Your task to perform on an android device: change keyboard looks Image 0: 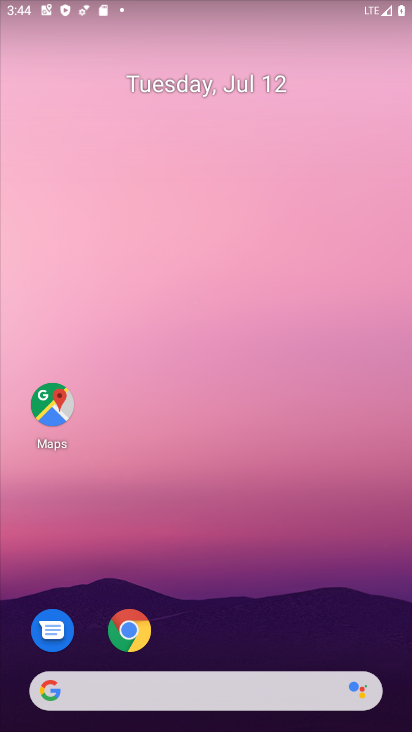
Step 0: drag from (239, 687) to (282, 53)
Your task to perform on an android device: change keyboard looks Image 1: 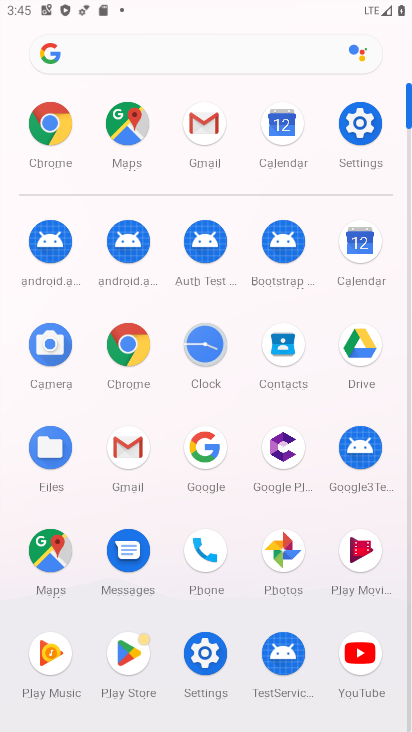
Step 1: click (350, 123)
Your task to perform on an android device: change keyboard looks Image 2: 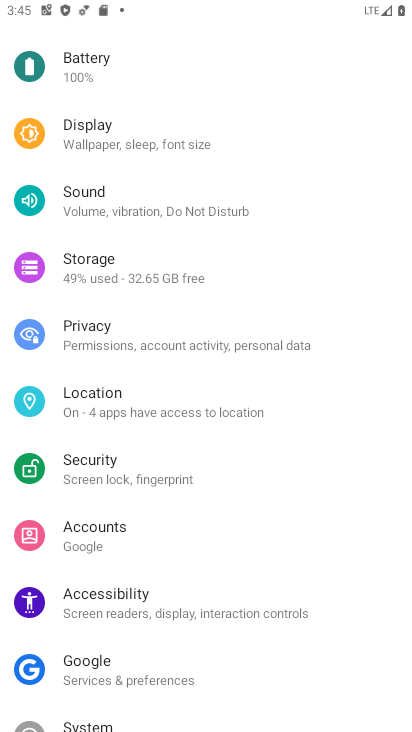
Step 2: drag from (182, 717) to (335, 194)
Your task to perform on an android device: change keyboard looks Image 3: 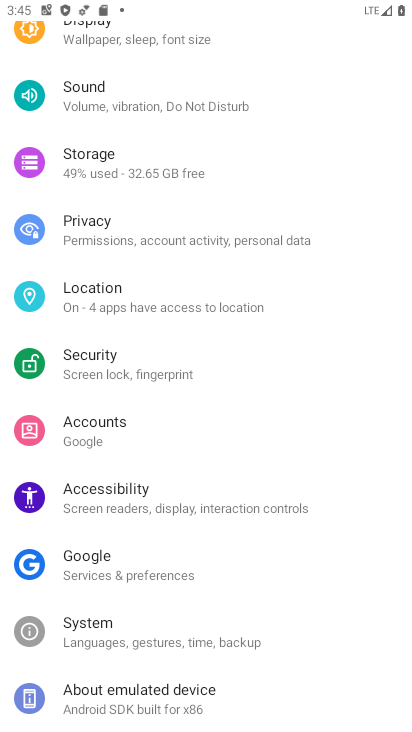
Step 3: click (174, 623)
Your task to perform on an android device: change keyboard looks Image 4: 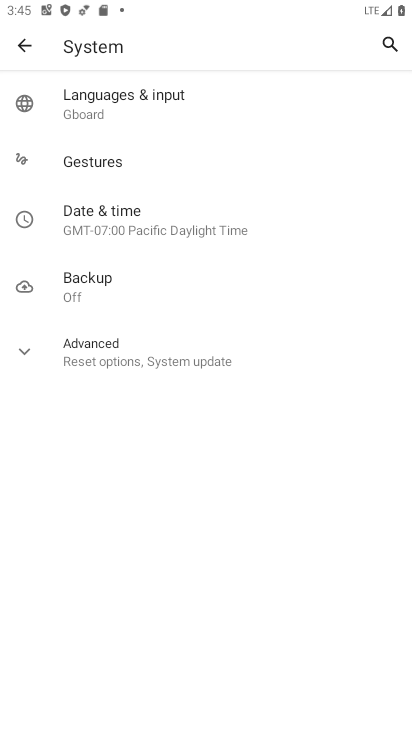
Step 4: click (157, 97)
Your task to perform on an android device: change keyboard looks Image 5: 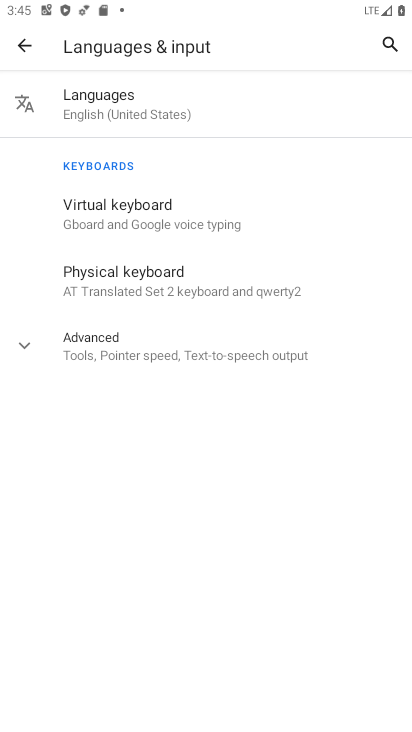
Step 5: click (132, 218)
Your task to perform on an android device: change keyboard looks Image 6: 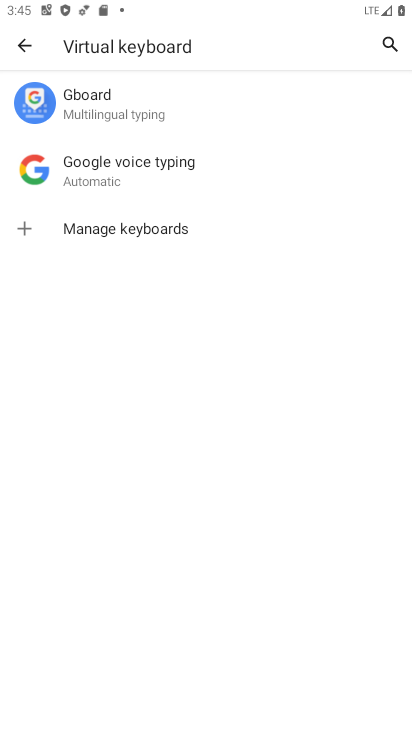
Step 6: click (113, 106)
Your task to perform on an android device: change keyboard looks Image 7: 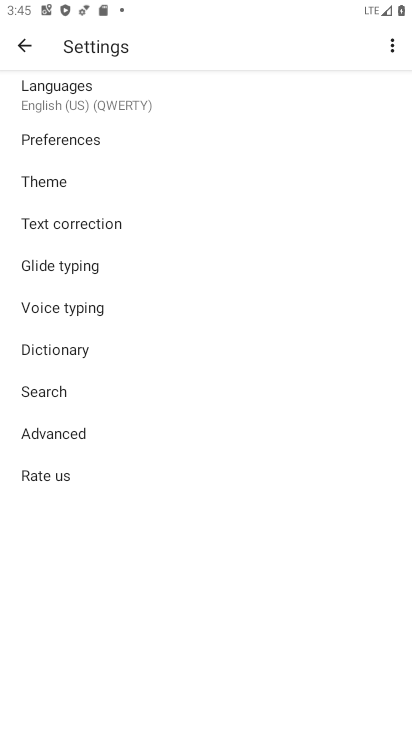
Step 7: click (50, 173)
Your task to perform on an android device: change keyboard looks Image 8: 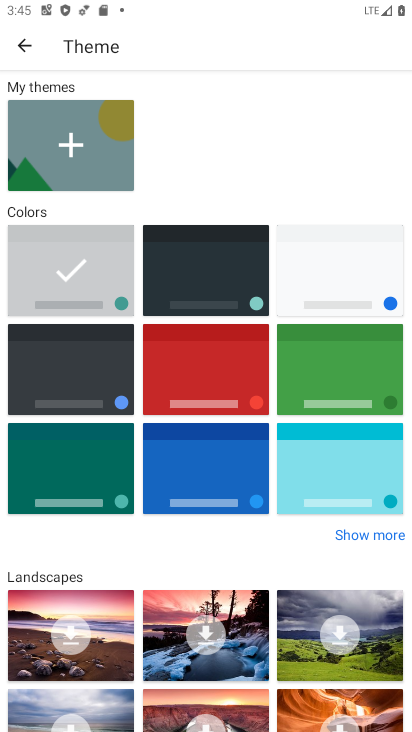
Step 8: click (73, 464)
Your task to perform on an android device: change keyboard looks Image 9: 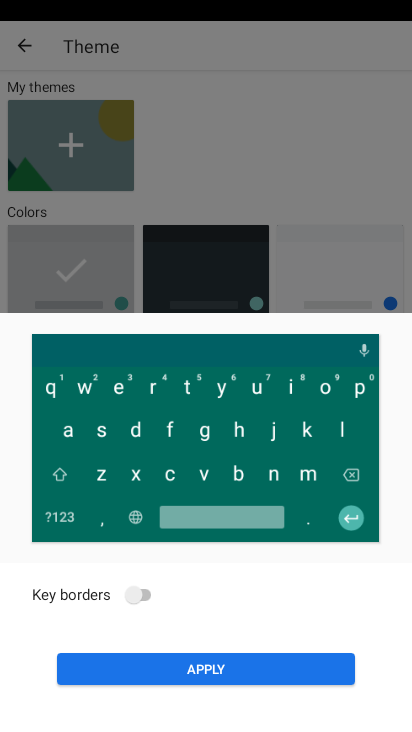
Step 9: click (254, 670)
Your task to perform on an android device: change keyboard looks Image 10: 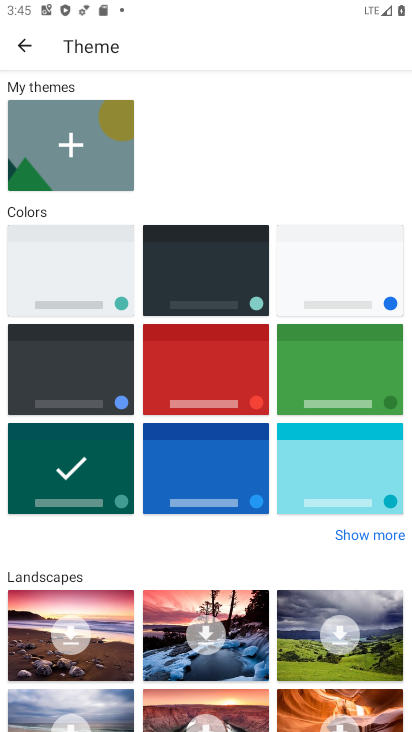
Step 10: task complete